Your task to perform on an android device: find photos in the google photos app Image 0: 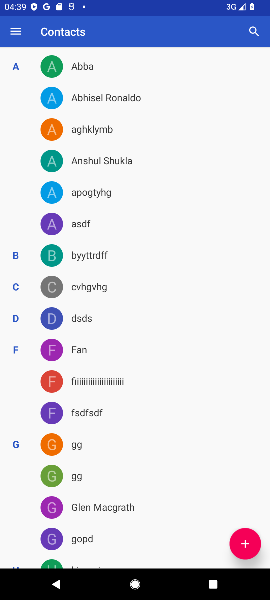
Step 0: press home button
Your task to perform on an android device: find photos in the google photos app Image 1: 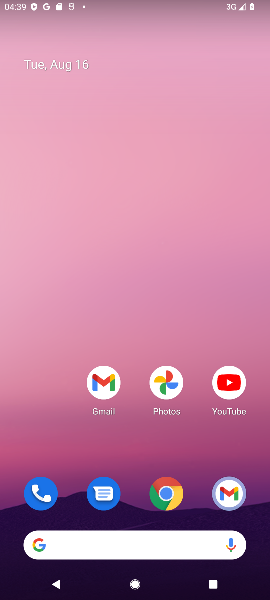
Step 1: drag from (66, 444) to (54, 129)
Your task to perform on an android device: find photos in the google photos app Image 2: 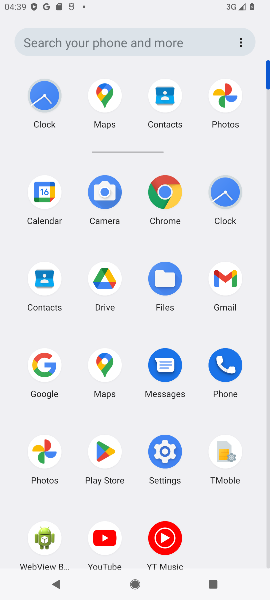
Step 2: click (42, 455)
Your task to perform on an android device: find photos in the google photos app Image 3: 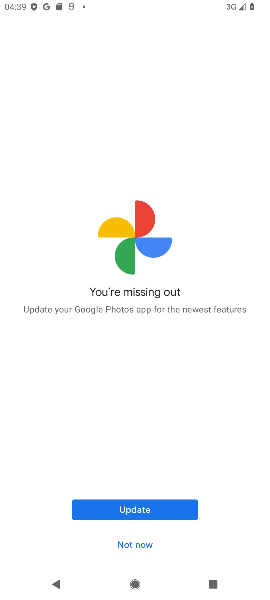
Step 3: click (136, 545)
Your task to perform on an android device: find photos in the google photos app Image 4: 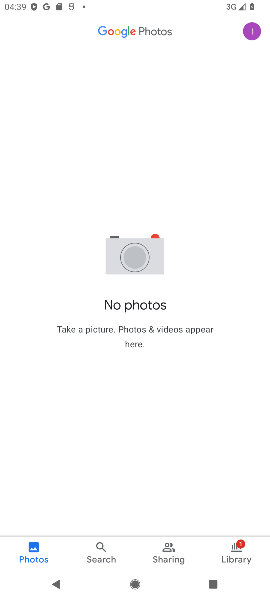
Step 4: task complete